Your task to perform on an android device: Go to Yahoo.com Image 0: 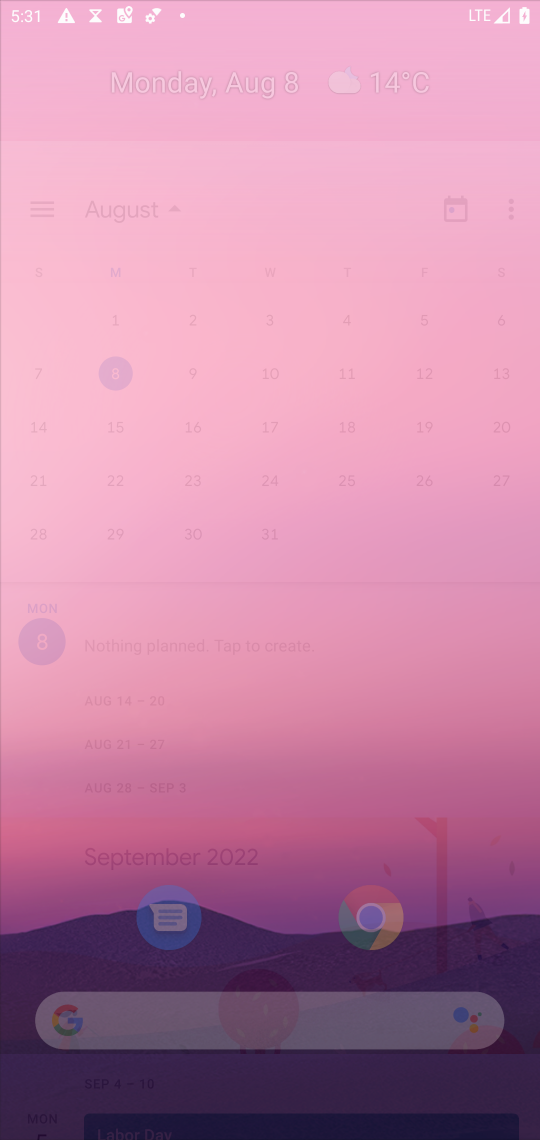
Step 0: press home button
Your task to perform on an android device: Go to Yahoo.com Image 1: 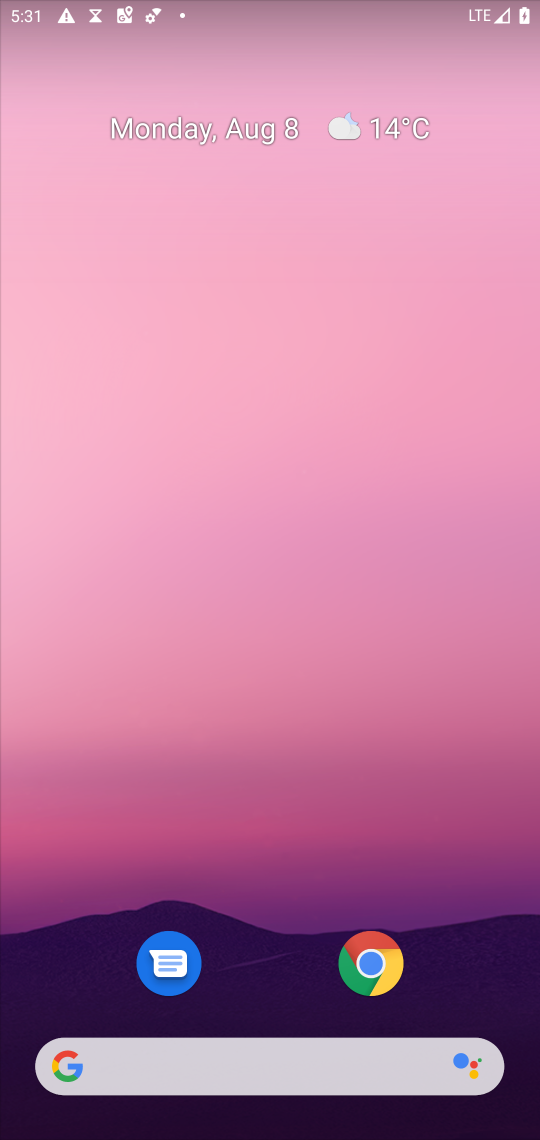
Step 1: click (361, 960)
Your task to perform on an android device: Go to Yahoo.com Image 2: 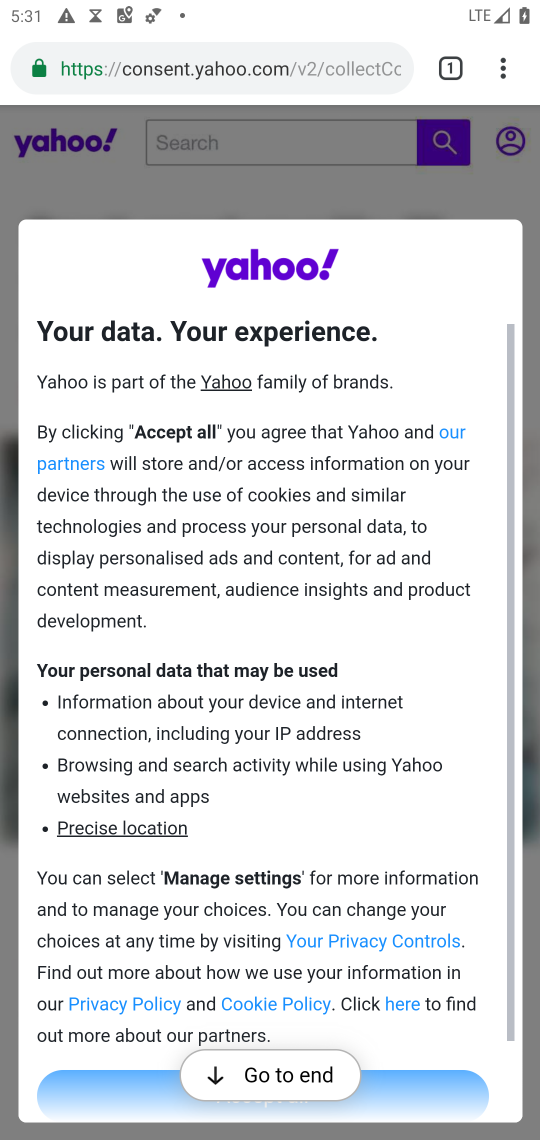
Step 2: task complete